Your task to perform on an android device: Show me productivity apps on the Play Store Image 0: 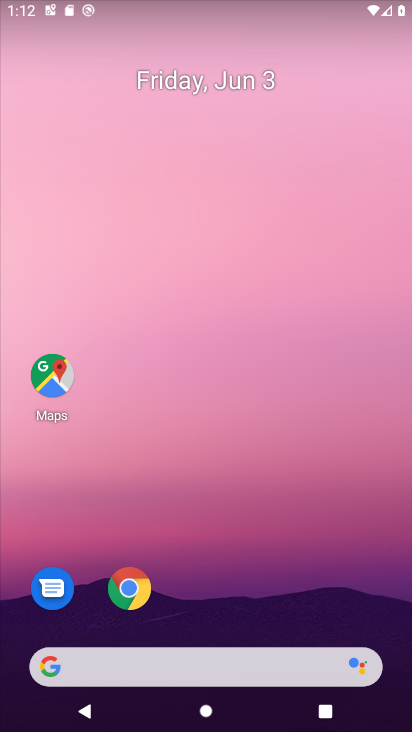
Step 0: drag from (152, 380) to (151, 336)
Your task to perform on an android device: Show me productivity apps on the Play Store Image 1: 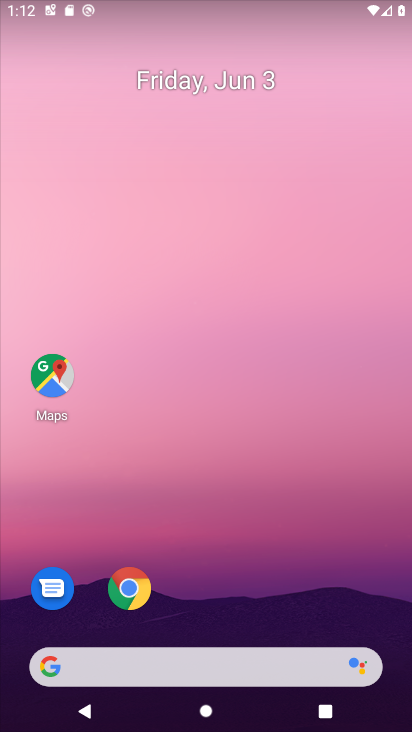
Step 1: drag from (255, 467) to (250, 113)
Your task to perform on an android device: Show me productivity apps on the Play Store Image 2: 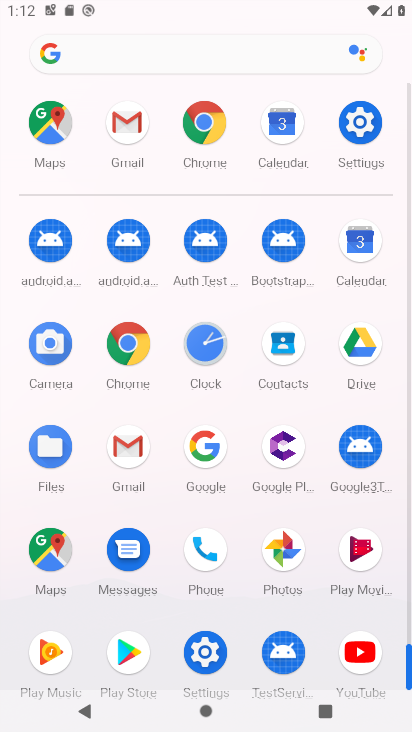
Step 2: click (131, 660)
Your task to perform on an android device: Show me productivity apps on the Play Store Image 3: 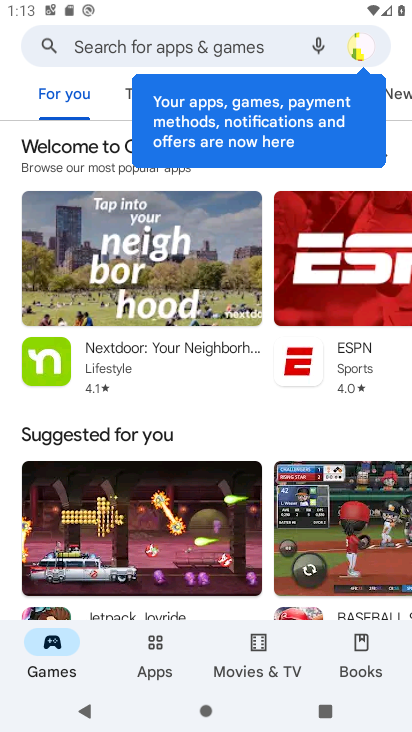
Step 3: click (131, 43)
Your task to perform on an android device: Show me productivity apps on the Play Store Image 4: 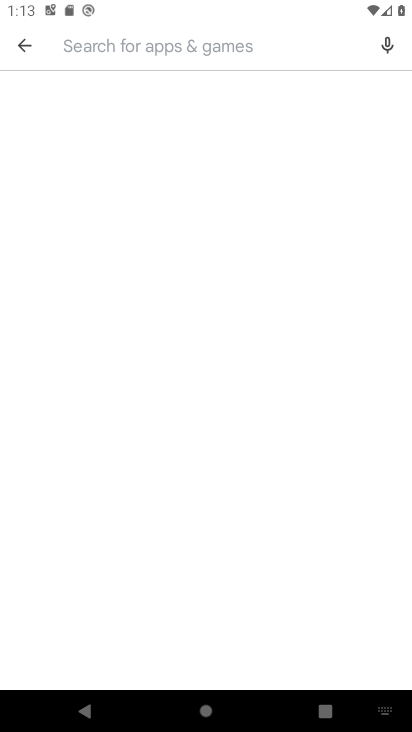
Step 4: type "productiovity"
Your task to perform on an android device: Show me productivity apps on the Play Store Image 5: 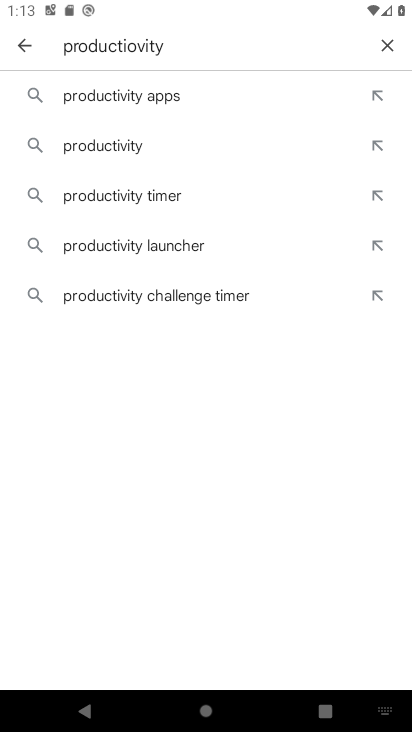
Step 5: click (171, 102)
Your task to perform on an android device: Show me productivity apps on the Play Store Image 6: 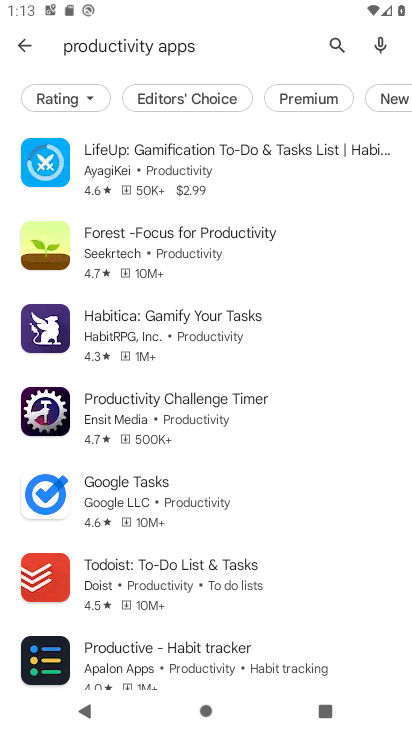
Step 6: task complete